Your task to perform on an android device: What's the weather going to be tomorrow? Image 0: 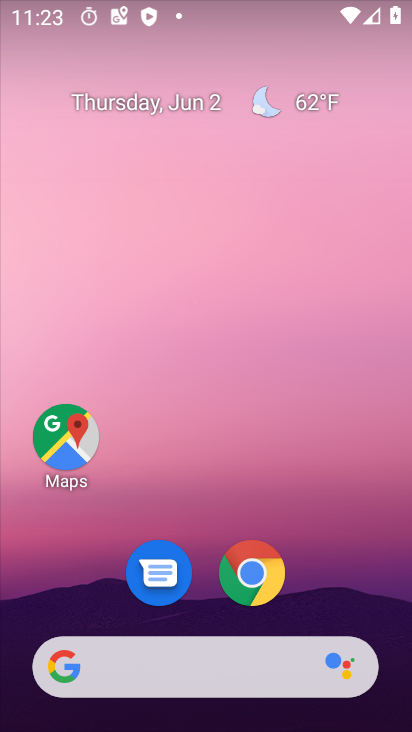
Step 0: drag from (287, 681) to (309, 13)
Your task to perform on an android device: What's the weather going to be tomorrow? Image 1: 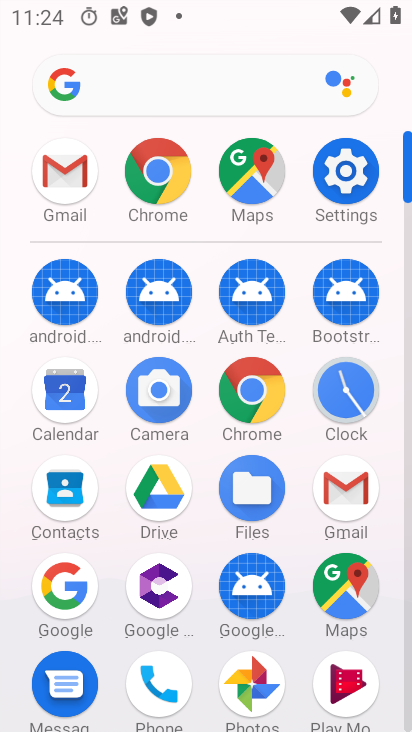
Step 1: press home button
Your task to perform on an android device: What's the weather going to be tomorrow? Image 2: 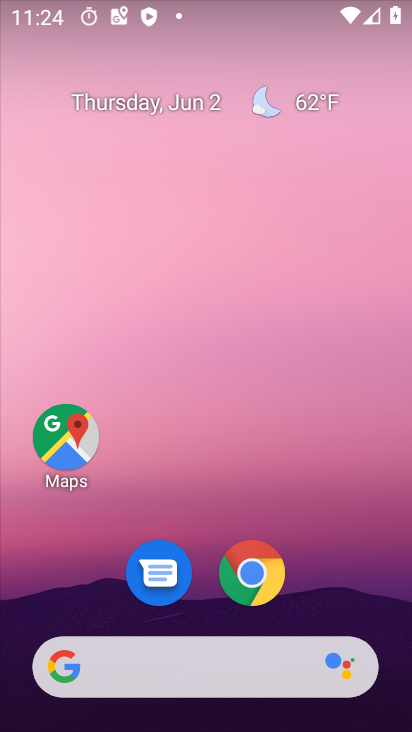
Step 2: drag from (10, 221) to (321, 221)
Your task to perform on an android device: What's the weather going to be tomorrow? Image 3: 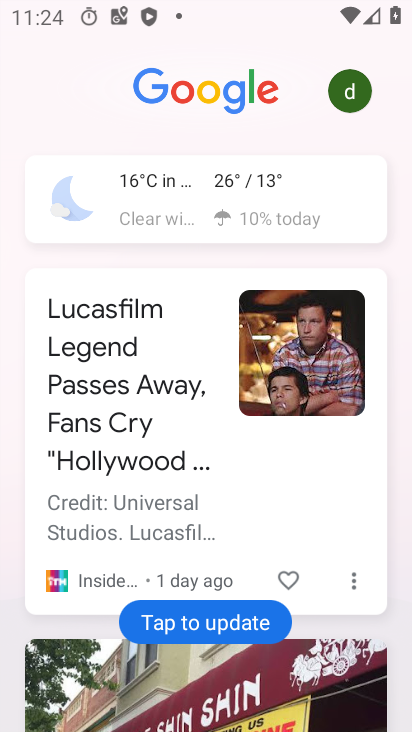
Step 3: click (144, 220)
Your task to perform on an android device: What's the weather going to be tomorrow? Image 4: 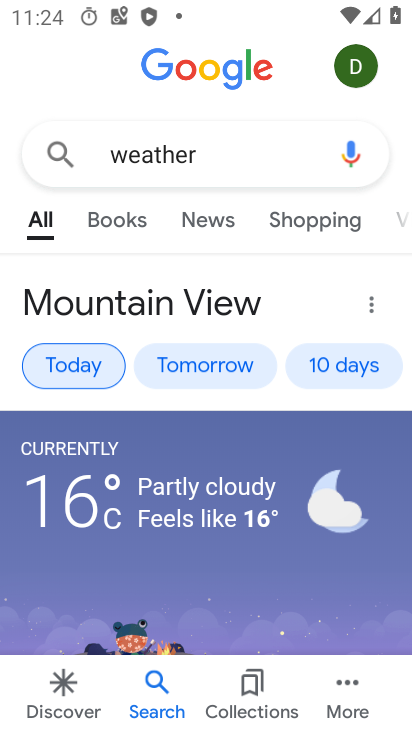
Step 4: click (191, 366)
Your task to perform on an android device: What's the weather going to be tomorrow? Image 5: 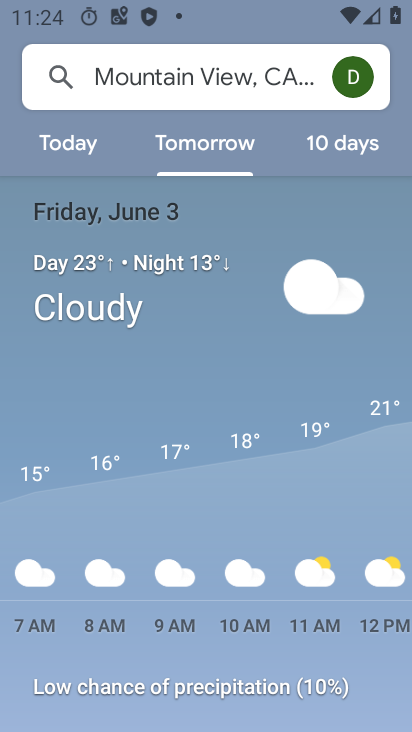
Step 5: task complete